Your task to perform on an android device: remove spam from my inbox in the gmail app Image 0: 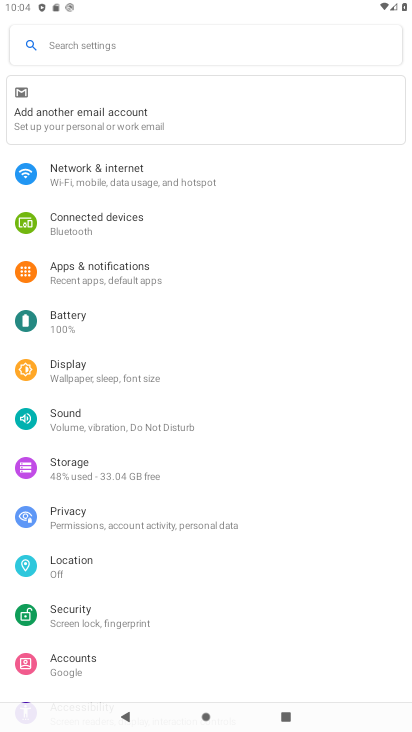
Step 0: press home button
Your task to perform on an android device: remove spam from my inbox in the gmail app Image 1: 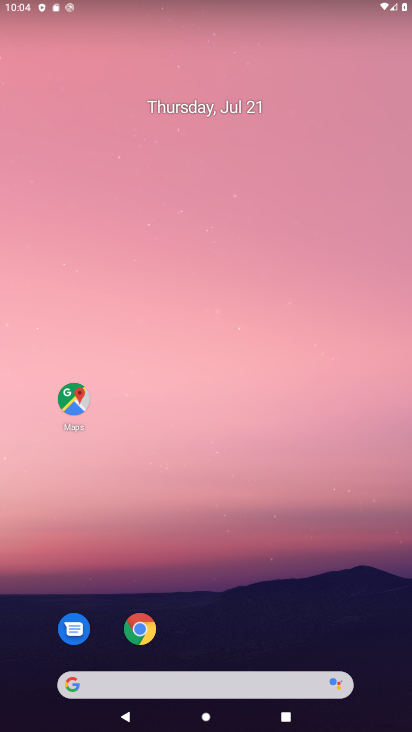
Step 1: drag from (218, 636) to (228, 149)
Your task to perform on an android device: remove spam from my inbox in the gmail app Image 2: 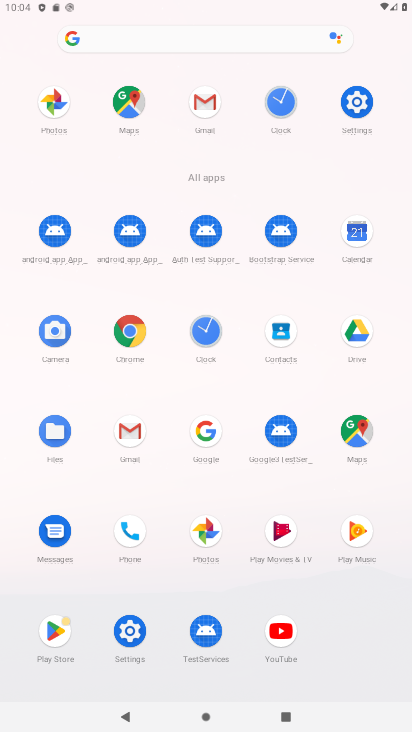
Step 2: click (211, 94)
Your task to perform on an android device: remove spam from my inbox in the gmail app Image 3: 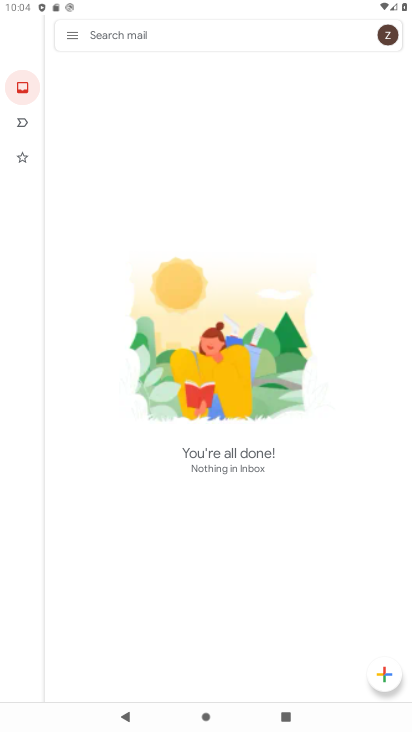
Step 3: click (61, 35)
Your task to perform on an android device: remove spam from my inbox in the gmail app Image 4: 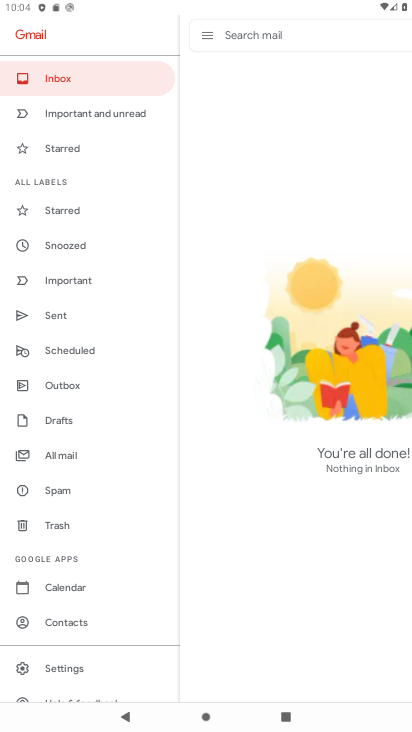
Step 4: click (69, 82)
Your task to perform on an android device: remove spam from my inbox in the gmail app Image 5: 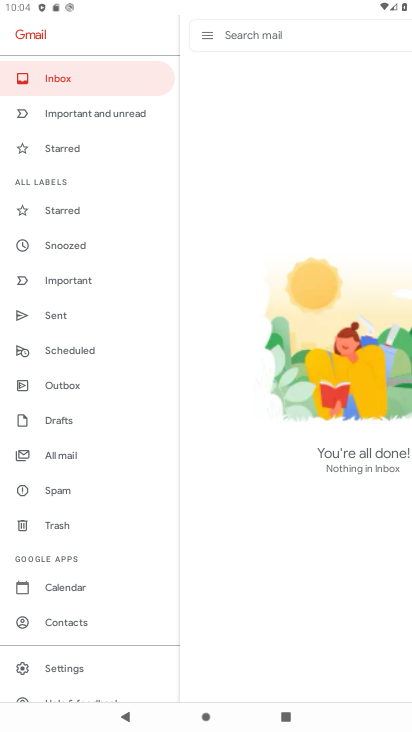
Step 5: click (82, 77)
Your task to perform on an android device: remove spam from my inbox in the gmail app Image 6: 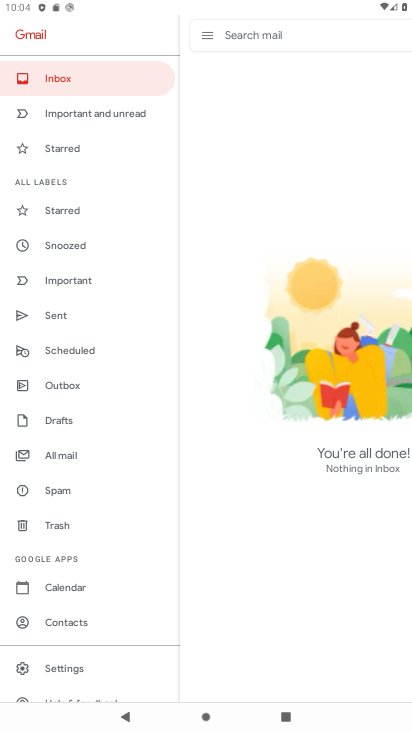
Step 6: click (34, 455)
Your task to perform on an android device: remove spam from my inbox in the gmail app Image 7: 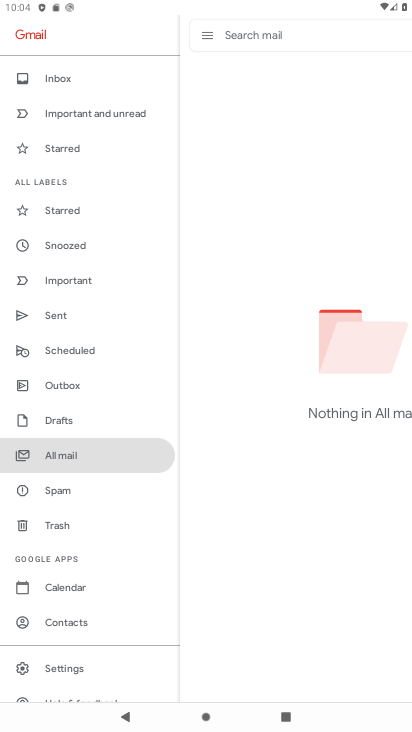
Step 7: task complete